Your task to perform on an android device: make emails show in primary in the gmail app Image 0: 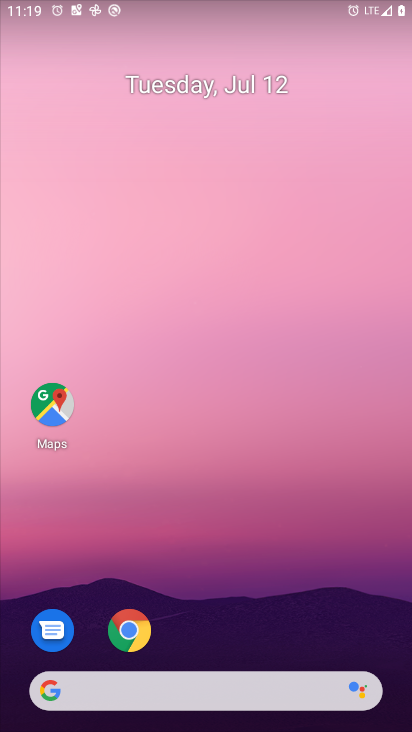
Step 0: press home button
Your task to perform on an android device: make emails show in primary in the gmail app Image 1: 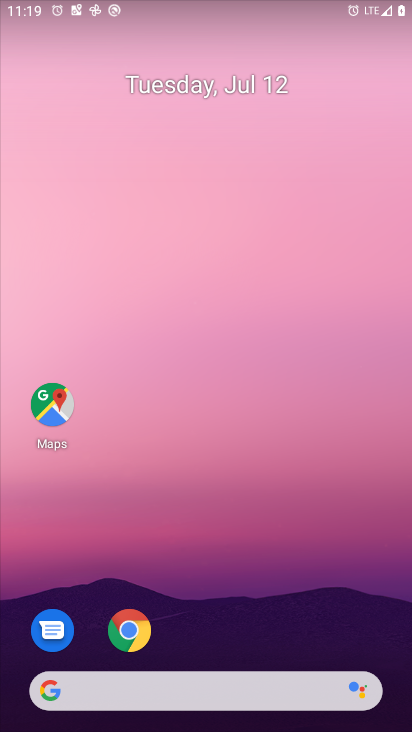
Step 1: drag from (214, 641) to (233, 93)
Your task to perform on an android device: make emails show in primary in the gmail app Image 2: 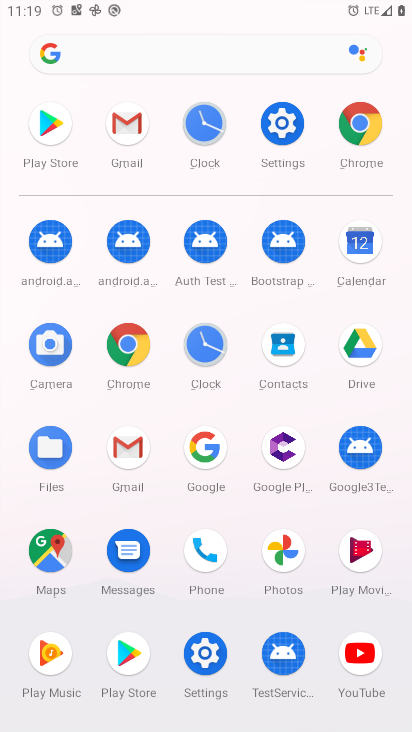
Step 2: click (125, 130)
Your task to perform on an android device: make emails show in primary in the gmail app Image 3: 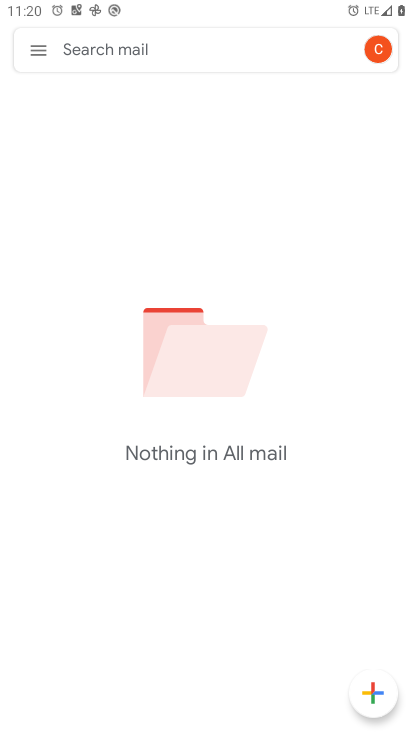
Step 3: click (46, 48)
Your task to perform on an android device: make emails show in primary in the gmail app Image 4: 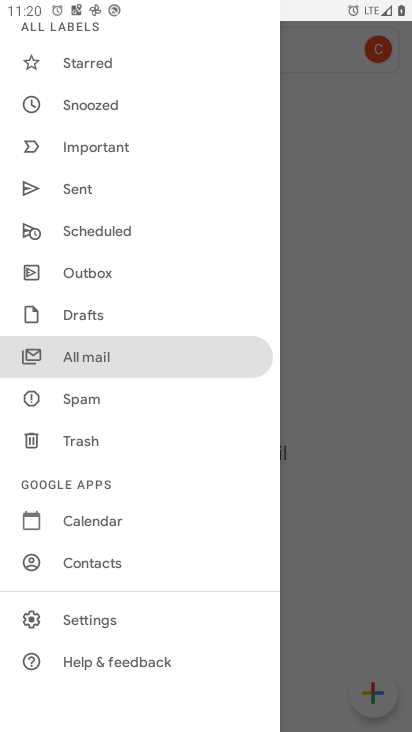
Step 4: click (100, 619)
Your task to perform on an android device: make emails show in primary in the gmail app Image 5: 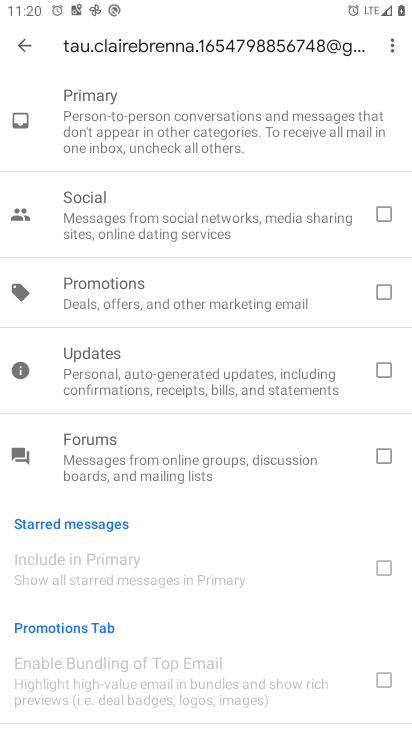
Step 5: task complete